Your task to perform on an android device: Open the calendar and show me this week's events? Image 0: 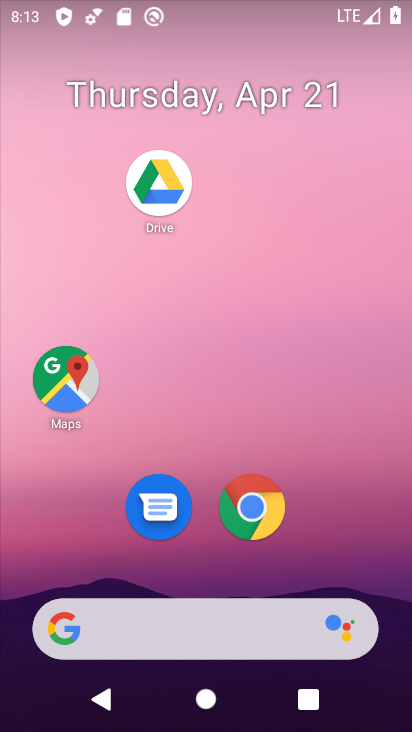
Step 0: drag from (356, 542) to (358, 150)
Your task to perform on an android device: Open the calendar and show me this week's events? Image 1: 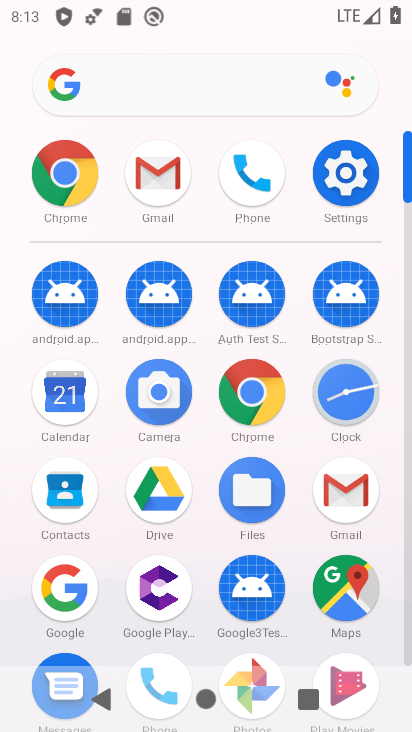
Step 1: click (65, 413)
Your task to perform on an android device: Open the calendar and show me this week's events? Image 2: 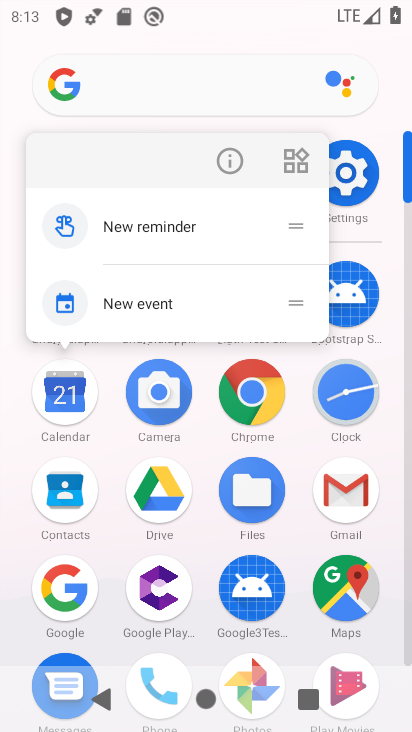
Step 2: click (65, 415)
Your task to perform on an android device: Open the calendar and show me this week's events? Image 3: 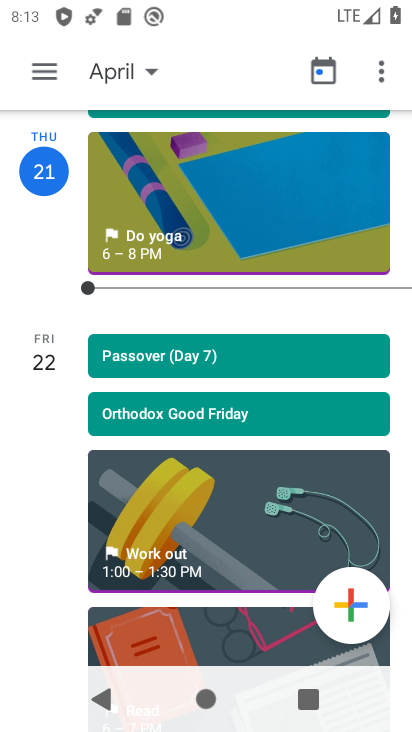
Step 3: drag from (222, 541) to (233, 407)
Your task to perform on an android device: Open the calendar and show me this week's events? Image 4: 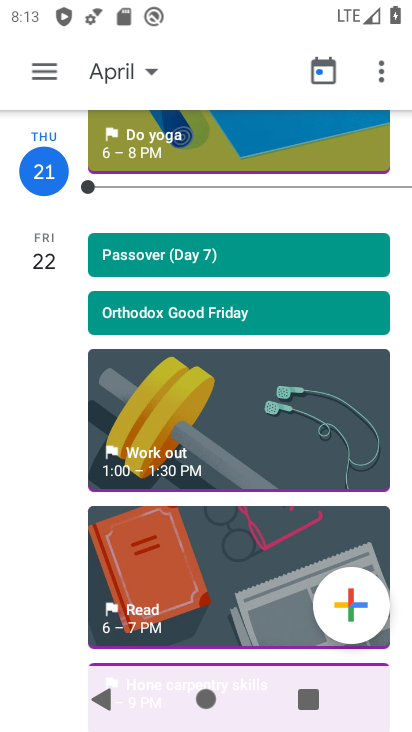
Step 4: drag from (236, 508) to (237, 421)
Your task to perform on an android device: Open the calendar and show me this week's events? Image 5: 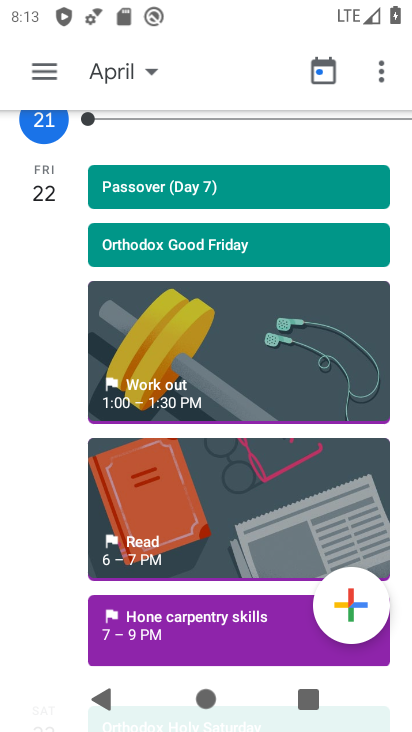
Step 5: click (225, 345)
Your task to perform on an android device: Open the calendar and show me this week's events? Image 6: 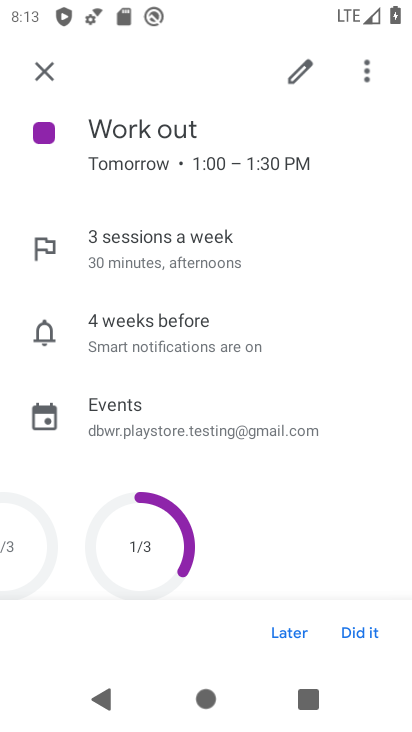
Step 6: task complete